Your task to perform on an android device: Add lenovo thinkpad to the cart on bestbuy, then select checkout. Image 0: 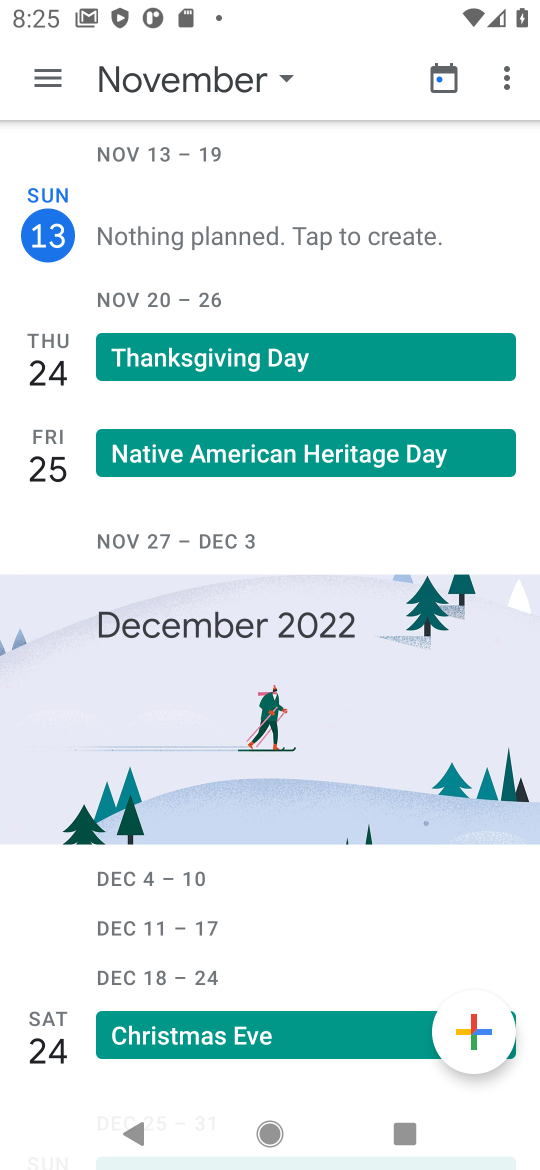
Step 0: press home button
Your task to perform on an android device: Add lenovo thinkpad to the cart on bestbuy, then select checkout. Image 1: 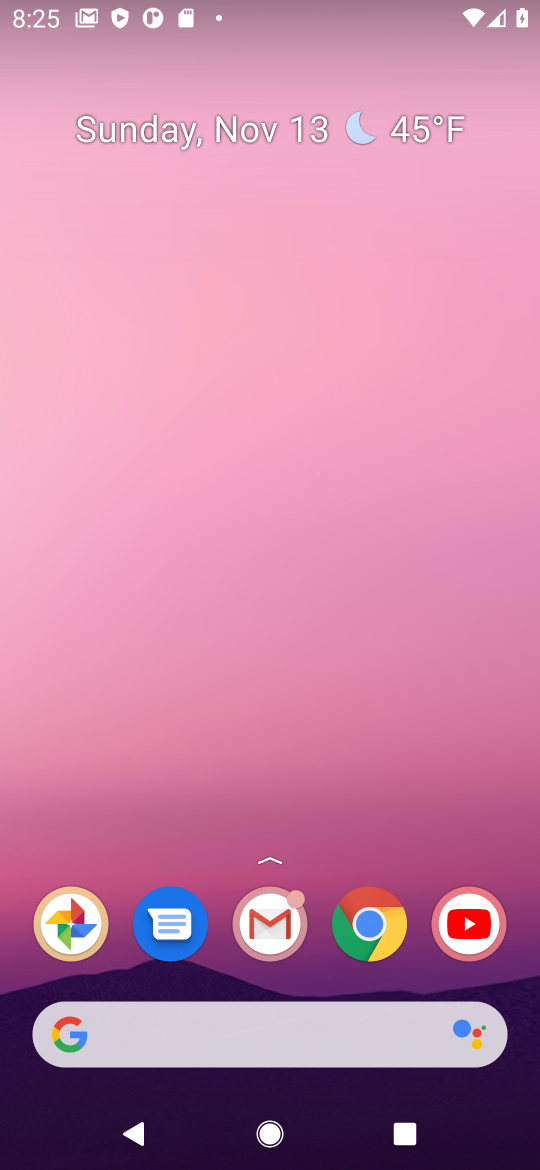
Step 1: click (362, 922)
Your task to perform on an android device: Add lenovo thinkpad to the cart on bestbuy, then select checkout. Image 2: 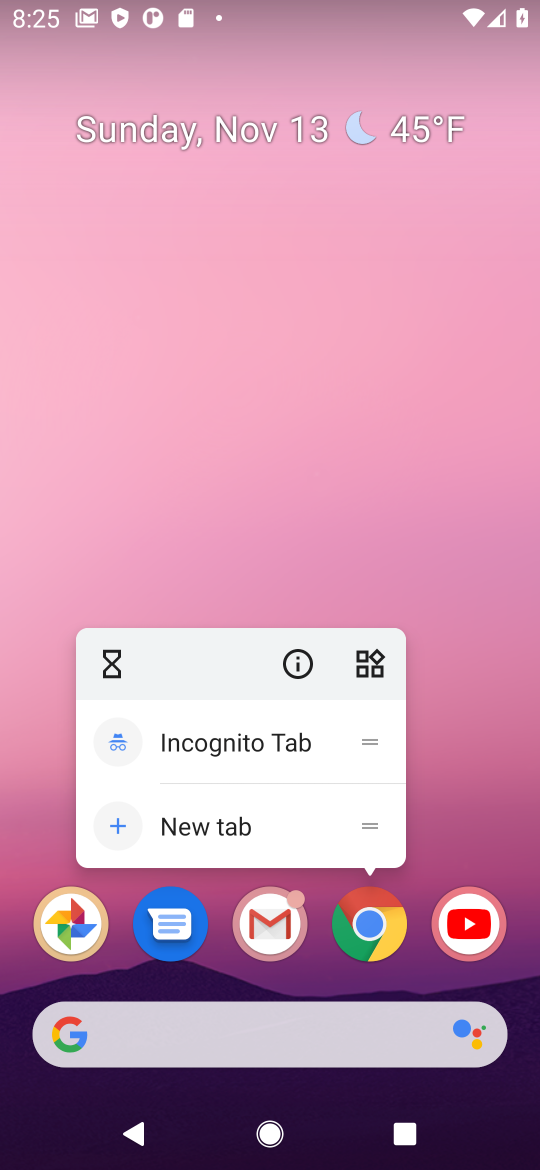
Step 2: click (380, 922)
Your task to perform on an android device: Add lenovo thinkpad to the cart on bestbuy, then select checkout. Image 3: 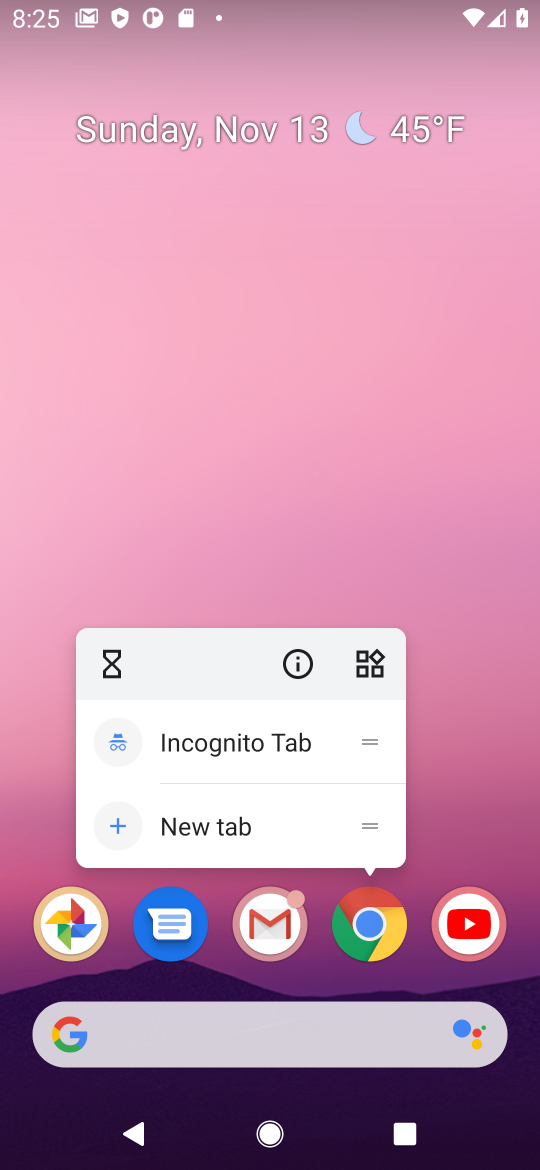
Step 3: click (365, 924)
Your task to perform on an android device: Add lenovo thinkpad to the cart on bestbuy, then select checkout. Image 4: 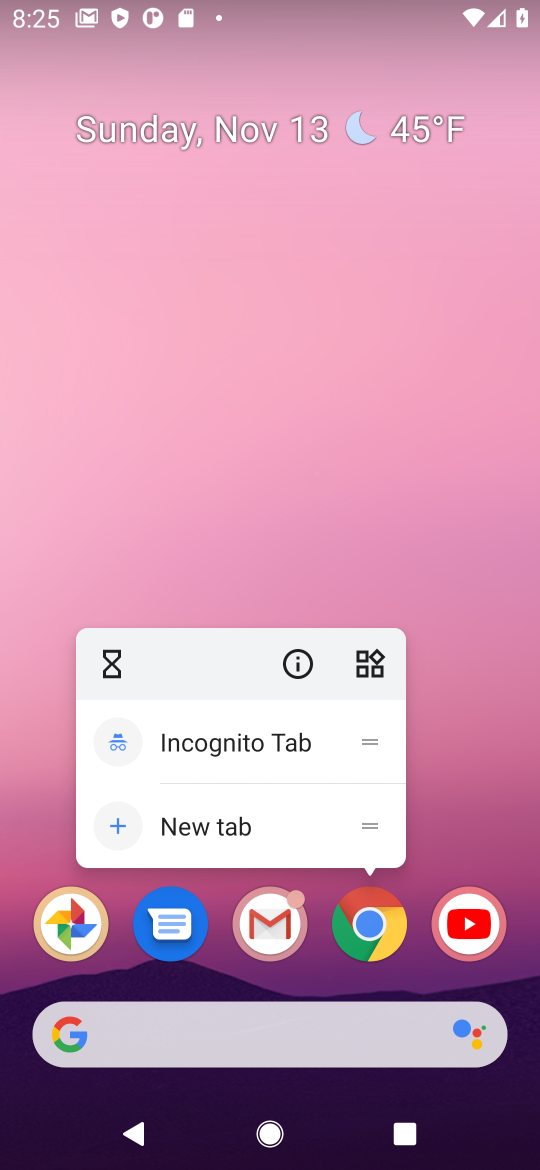
Step 4: click (365, 927)
Your task to perform on an android device: Add lenovo thinkpad to the cart on bestbuy, then select checkout. Image 5: 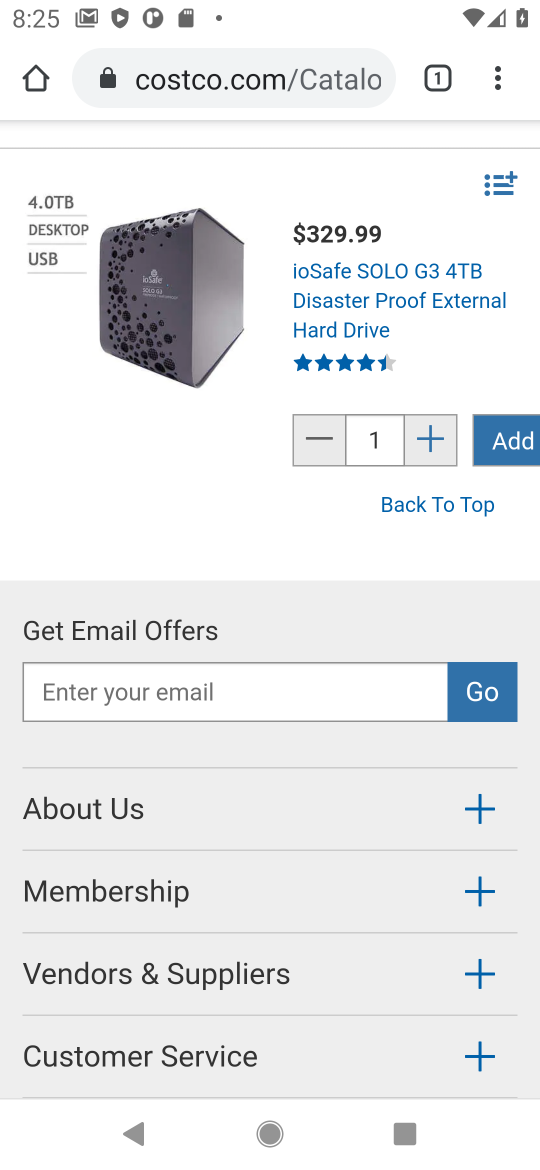
Step 5: click (282, 75)
Your task to perform on an android device: Add lenovo thinkpad to the cart on bestbuy, then select checkout. Image 6: 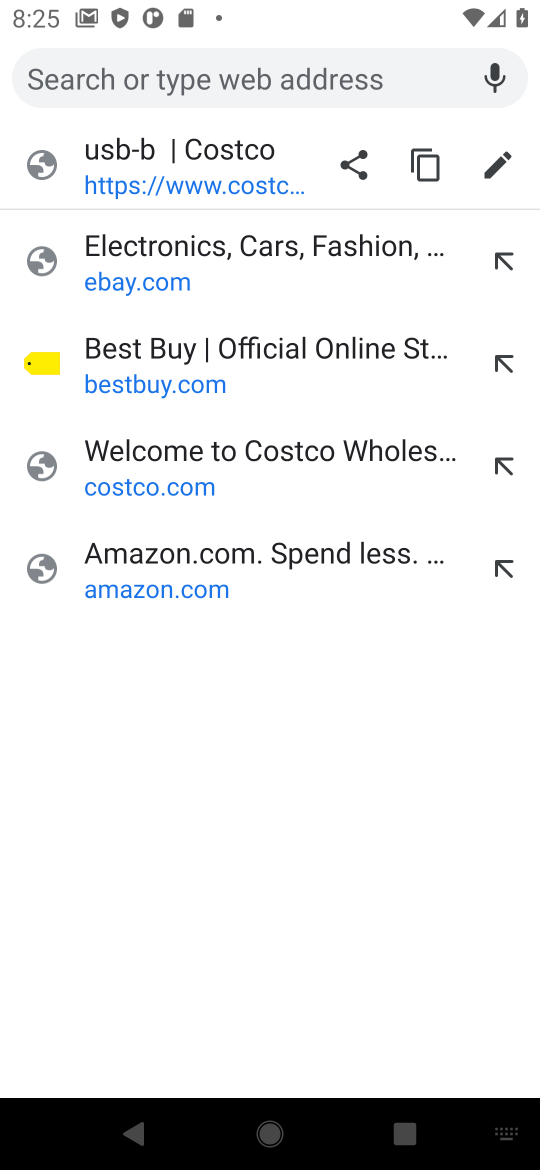
Step 6: type "bestbuy"
Your task to perform on an android device: Add lenovo thinkpad to the cart on bestbuy, then select checkout. Image 7: 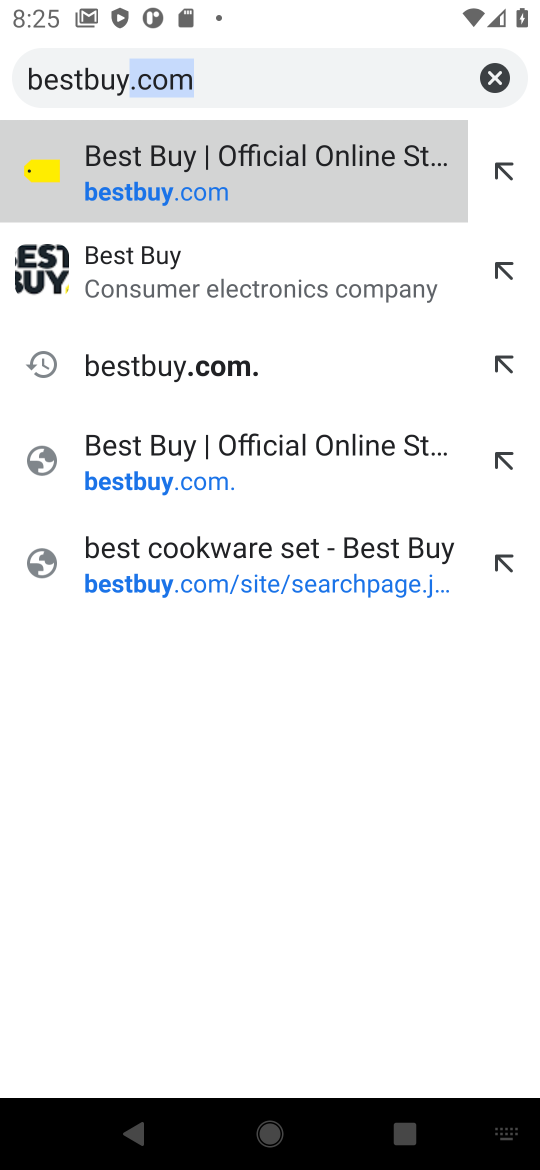
Step 7: press enter
Your task to perform on an android device: Add lenovo thinkpad to the cart on bestbuy, then select checkout. Image 8: 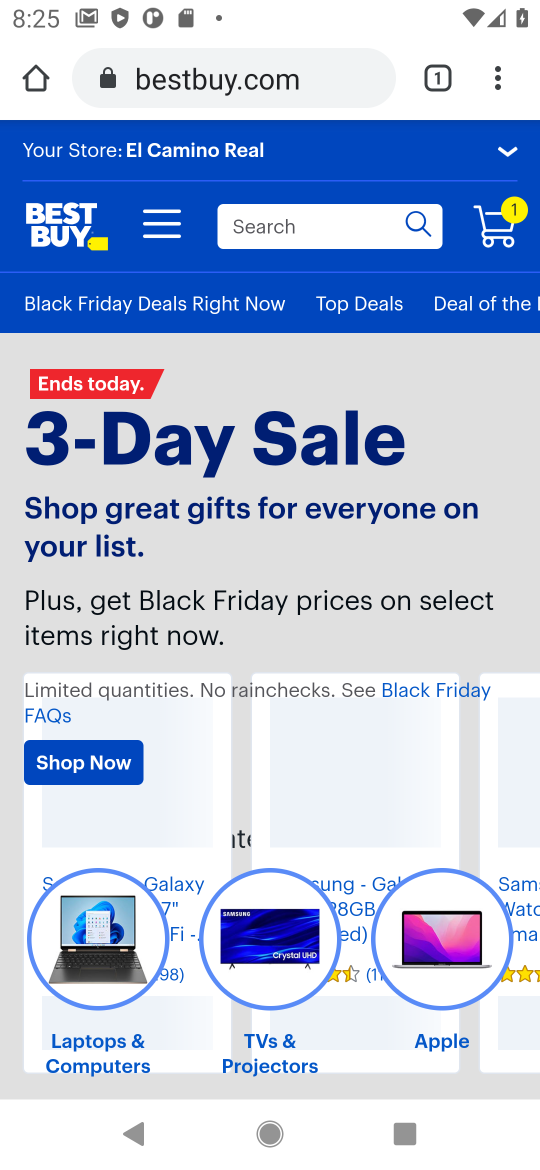
Step 8: click (366, 226)
Your task to perform on an android device: Add lenovo thinkpad to the cart on bestbuy, then select checkout. Image 9: 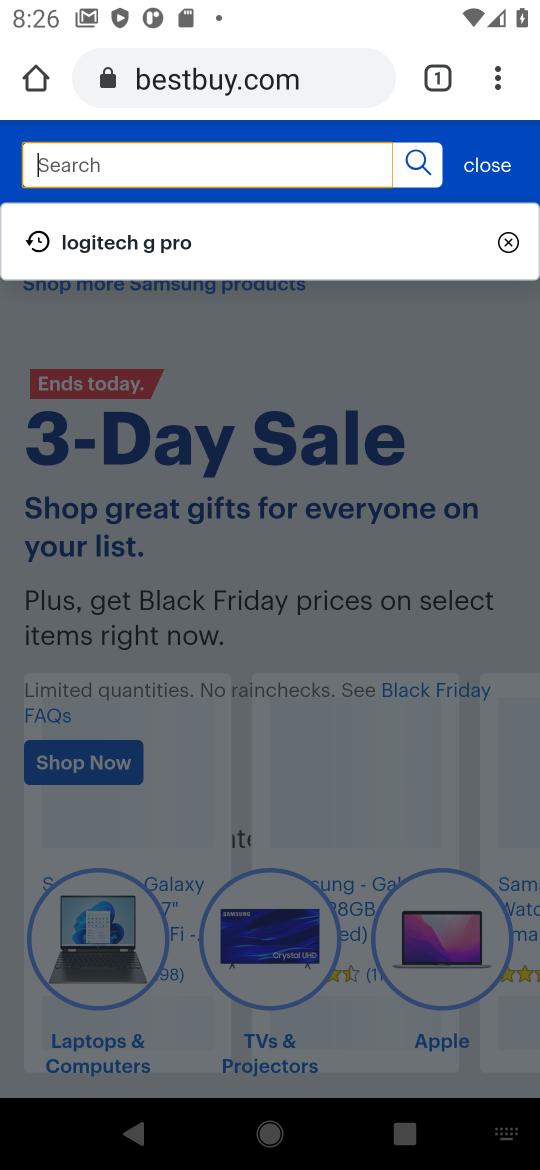
Step 9: type " lenovo thinkpad"
Your task to perform on an android device: Add lenovo thinkpad to the cart on bestbuy, then select checkout. Image 10: 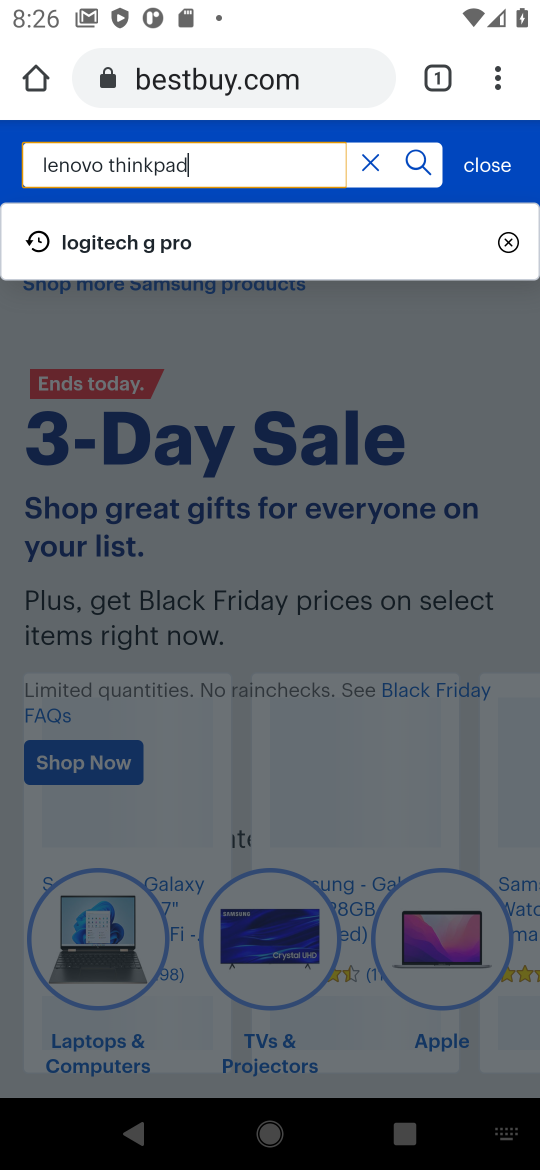
Step 10: press enter
Your task to perform on an android device: Add lenovo thinkpad to the cart on bestbuy, then select checkout. Image 11: 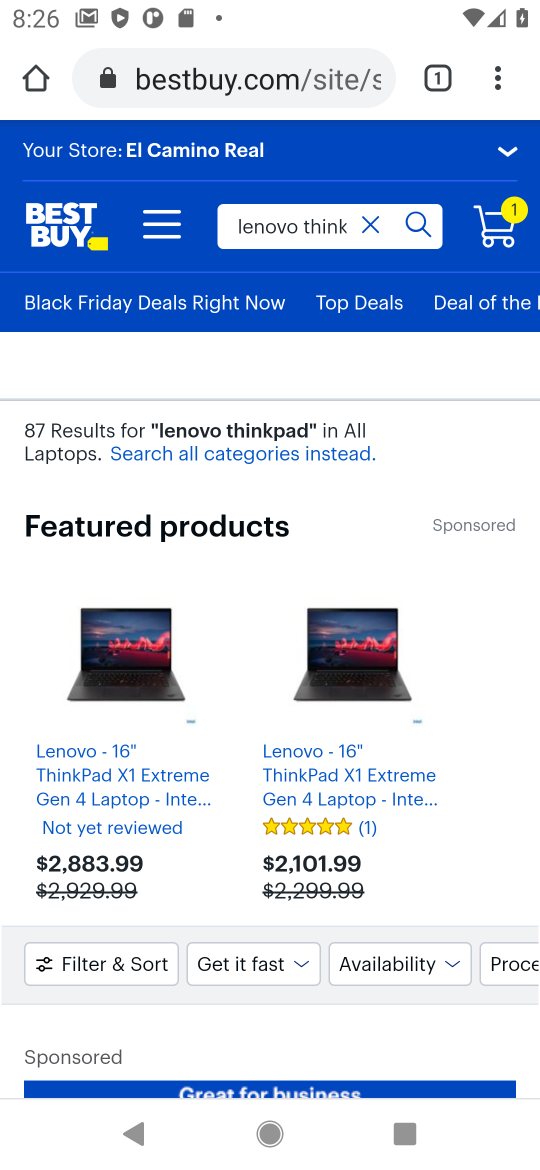
Step 11: drag from (209, 887) to (237, 277)
Your task to perform on an android device: Add lenovo thinkpad to the cart on bestbuy, then select checkout. Image 12: 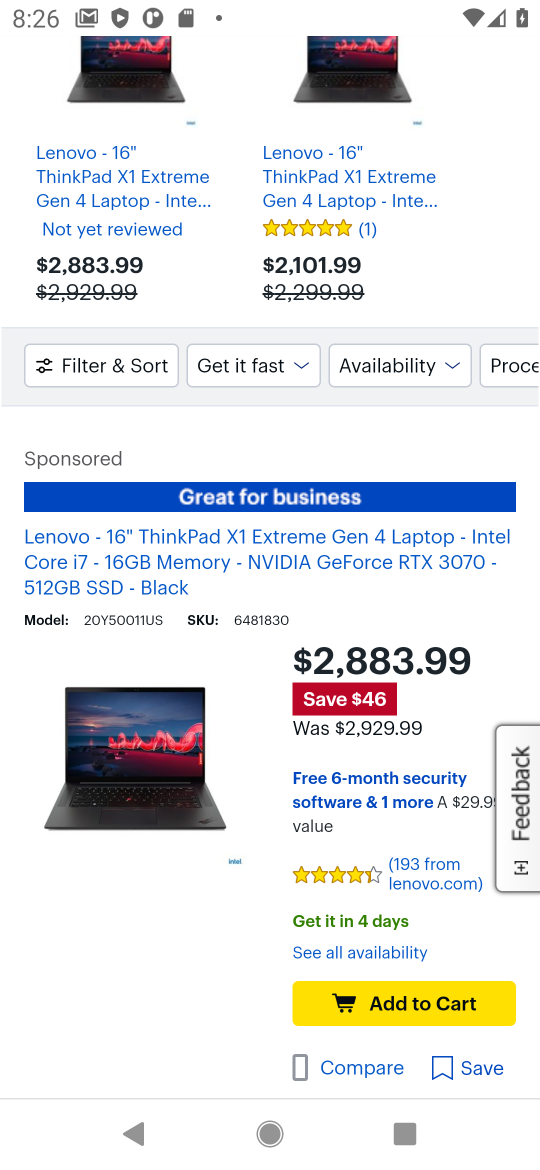
Step 12: drag from (140, 972) to (205, 744)
Your task to perform on an android device: Add lenovo thinkpad to the cart on bestbuy, then select checkout. Image 13: 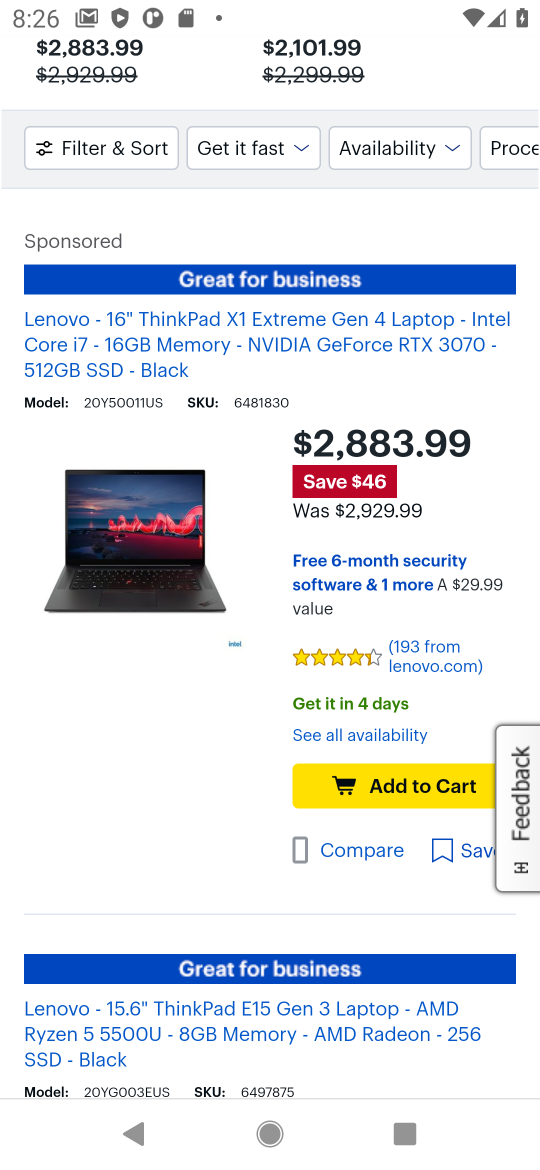
Step 13: click (432, 778)
Your task to perform on an android device: Add lenovo thinkpad to the cart on bestbuy, then select checkout. Image 14: 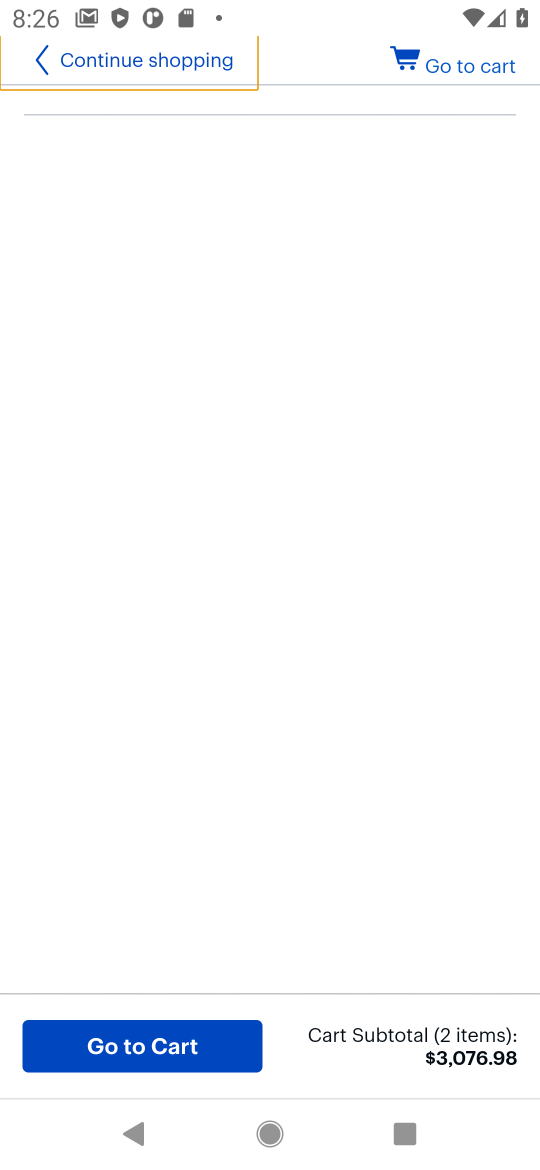
Step 14: drag from (437, 449) to (407, 552)
Your task to perform on an android device: Add lenovo thinkpad to the cart on bestbuy, then select checkout. Image 15: 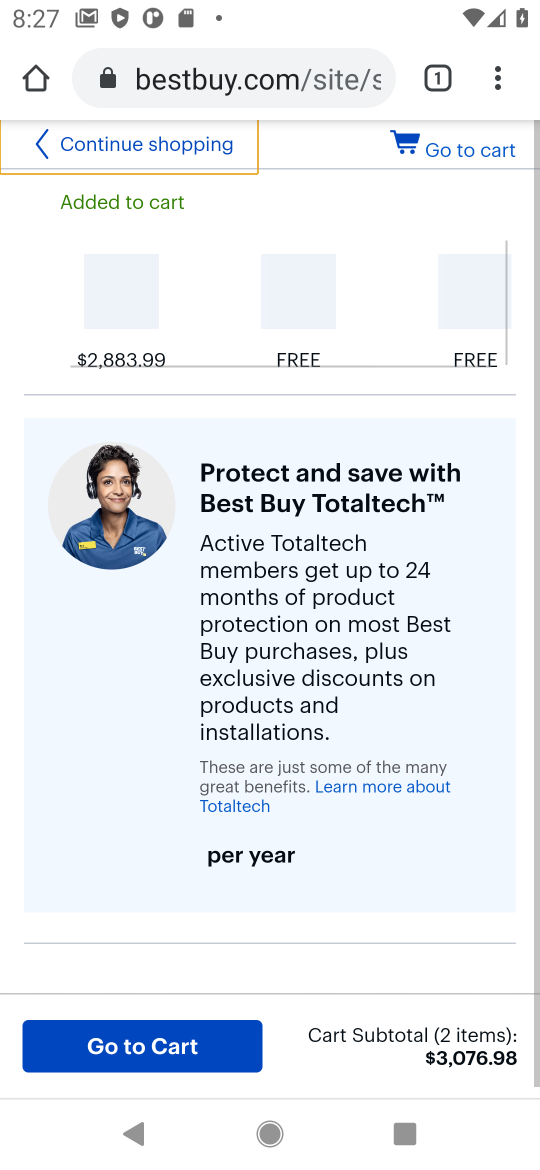
Step 15: click (476, 152)
Your task to perform on an android device: Add lenovo thinkpad to the cart on bestbuy, then select checkout. Image 16: 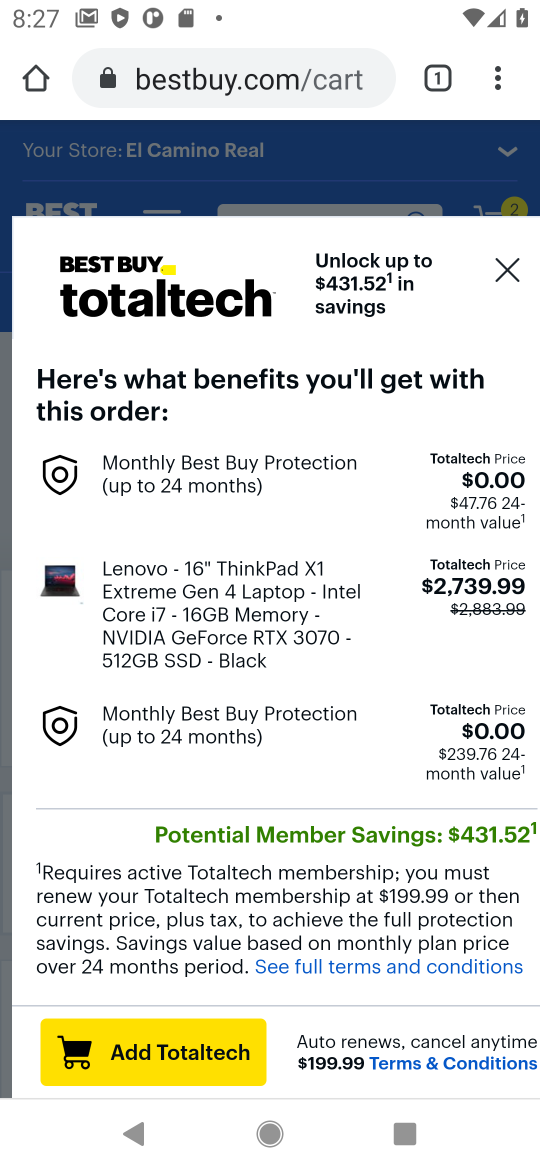
Step 16: click (503, 255)
Your task to perform on an android device: Add lenovo thinkpad to the cart on bestbuy, then select checkout. Image 17: 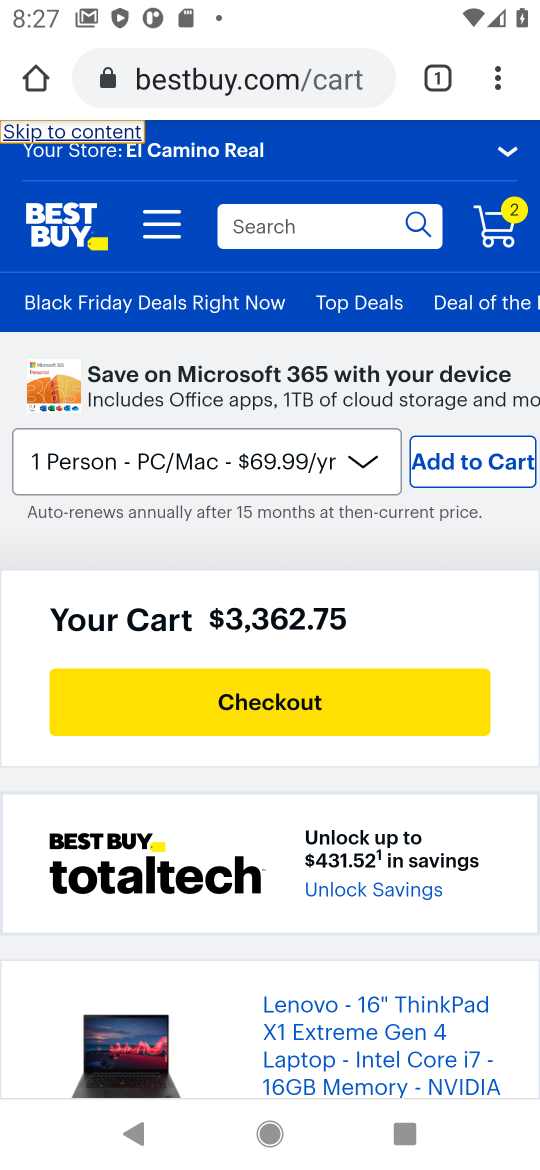
Step 17: drag from (249, 910) to (440, 410)
Your task to perform on an android device: Add lenovo thinkpad to the cart on bestbuy, then select checkout. Image 18: 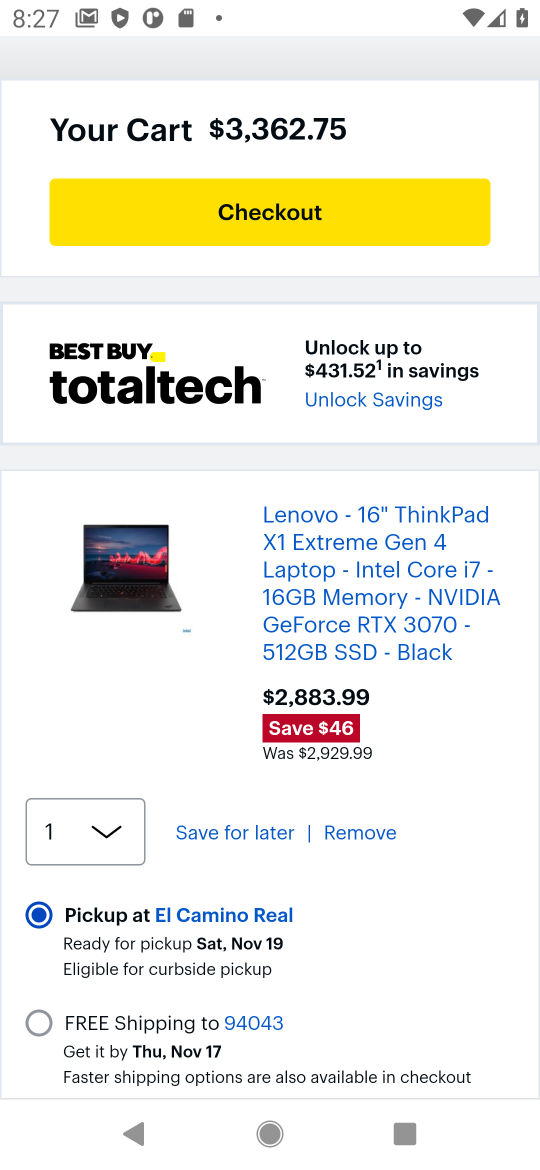
Step 18: drag from (369, 997) to (443, 403)
Your task to perform on an android device: Add lenovo thinkpad to the cart on bestbuy, then select checkout. Image 19: 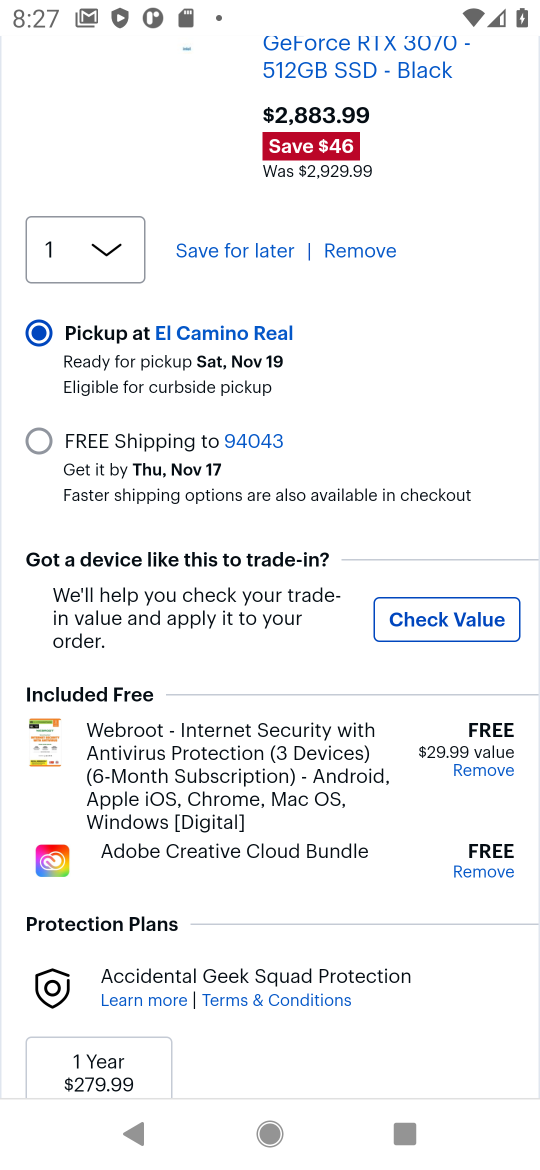
Step 19: drag from (338, 959) to (457, 135)
Your task to perform on an android device: Add lenovo thinkpad to the cart on bestbuy, then select checkout. Image 20: 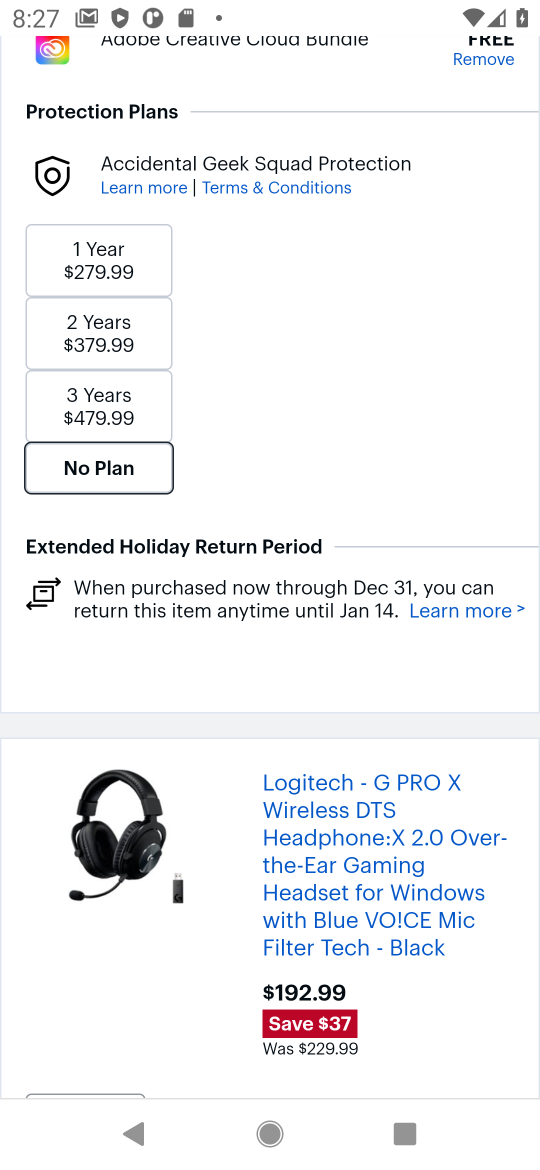
Step 20: drag from (348, 893) to (427, 199)
Your task to perform on an android device: Add lenovo thinkpad to the cart on bestbuy, then select checkout. Image 21: 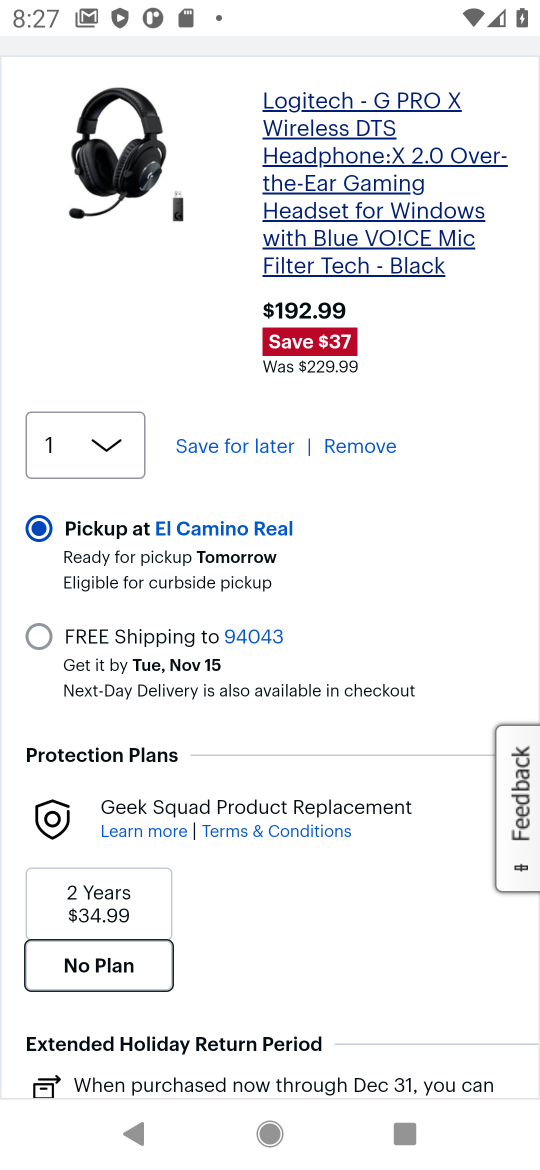
Step 21: click (351, 445)
Your task to perform on an android device: Add lenovo thinkpad to the cart on bestbuy, then select checkout. Image 22: 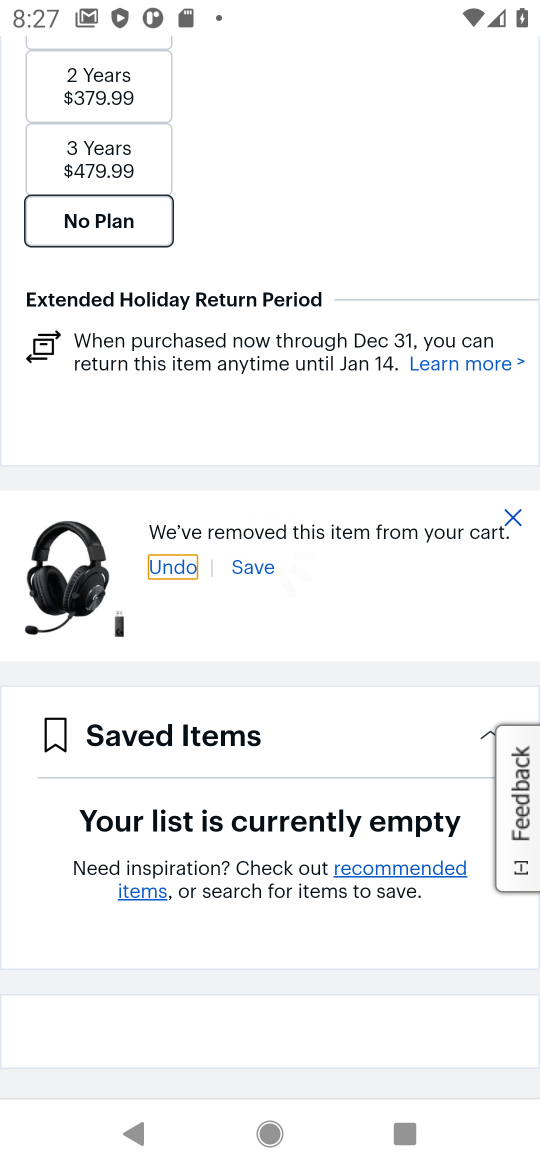
Step 22: drag from (350, 171) to (385, 1030)
Your task to perform on an android device: Add lenovo thinkpad to the cart on bestbuy, then select checkout. Image 23: 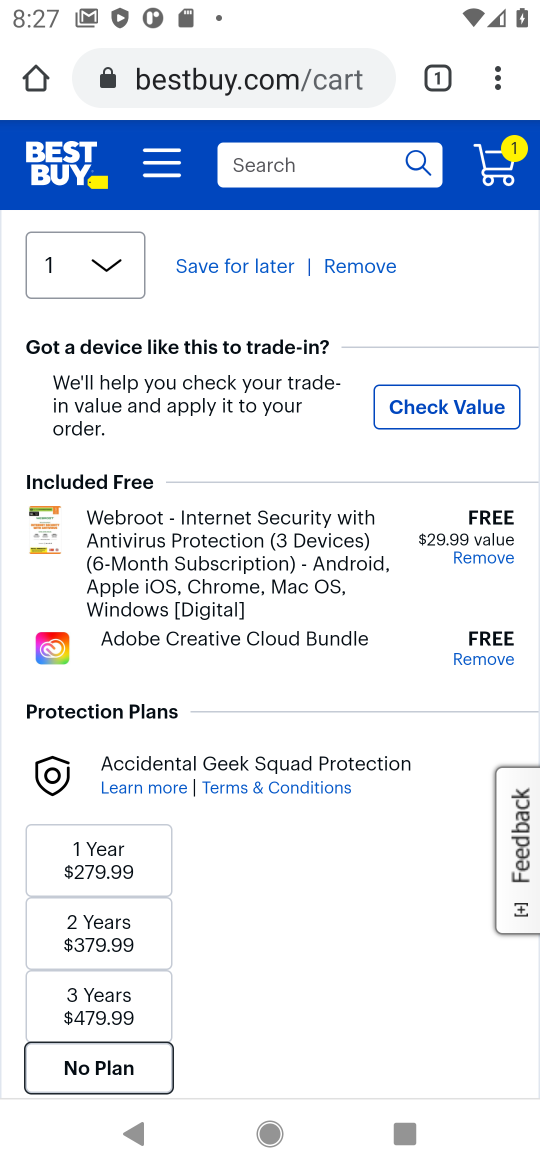
Step 23: drag from (368, 520) to (339, 1025)
Your task to perform on an android device: Add lenovo thinkpad to the cart on bestbuy, then select checkout. Image 24: 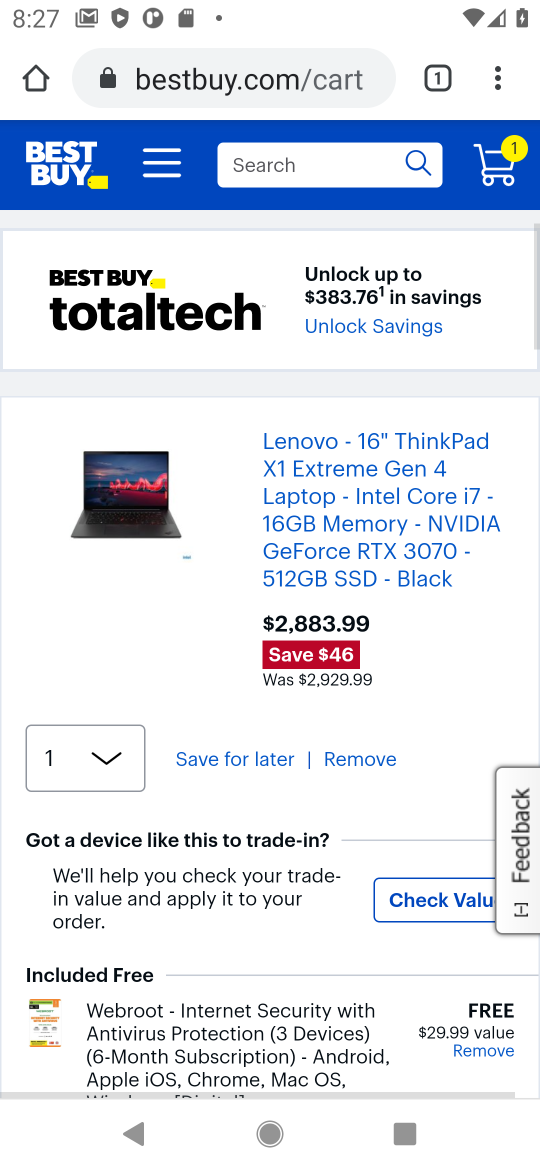
Step 24: drag from (383, 442) to (429, 1089)
Your task to perform on an android device: Add lenovo thinkpad to the cart on bestbuy, then select checkout. Image 25: 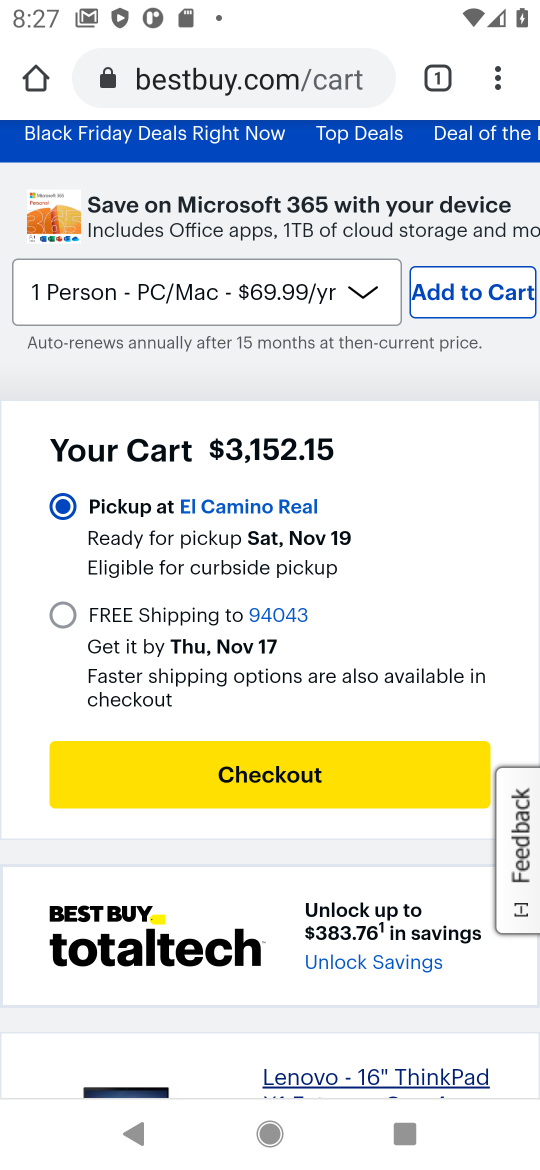
Step 25: click (301, 779)
Your task to perform on an android device: Add lenovo thinkpad to the cart on bestbuy, then select checkout. Image 26: 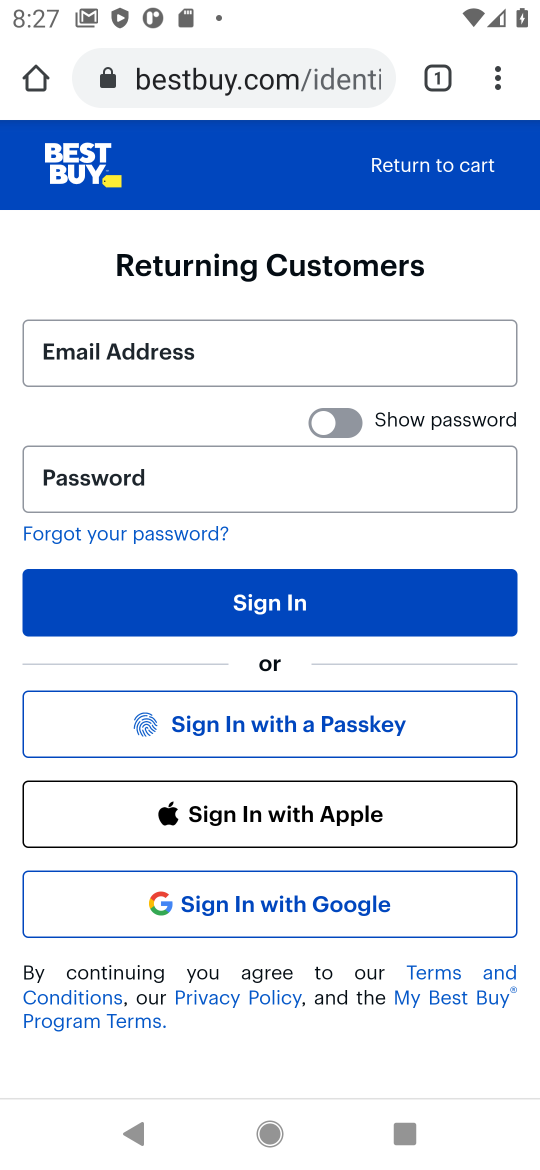
Step 26: task complete